Your task to perform on an android device: change alarm snooze length Image 0: 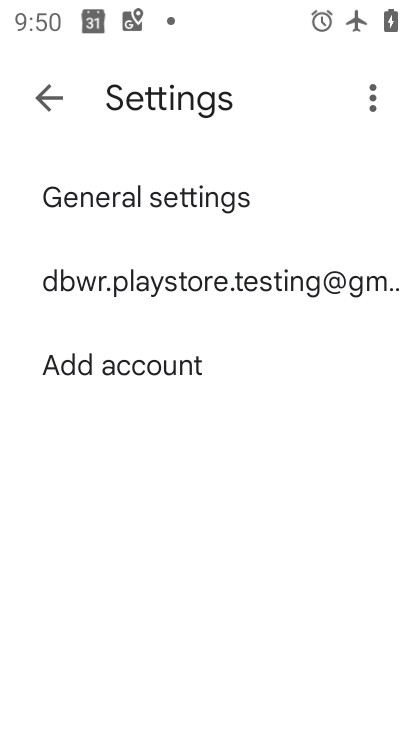
Step 0: press home button
Your task to perform on an android device: change alarm snooze length Image 1: 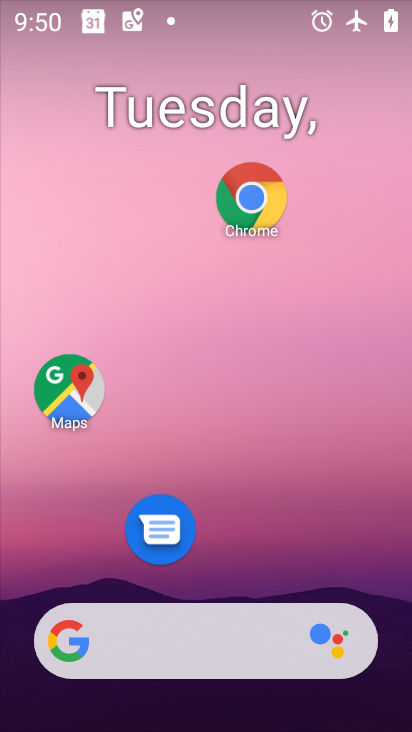
Step 1: drag from (369, 486) to (304, 86)
Your task to perform on an android device: change alarm snooze length Image 2: 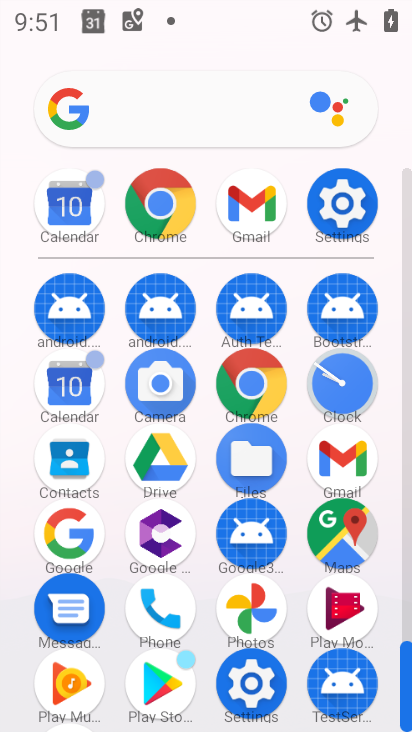
Step 2: click (346, 369)
Your task to perform on an android device: change alarm snooze length Image 3: 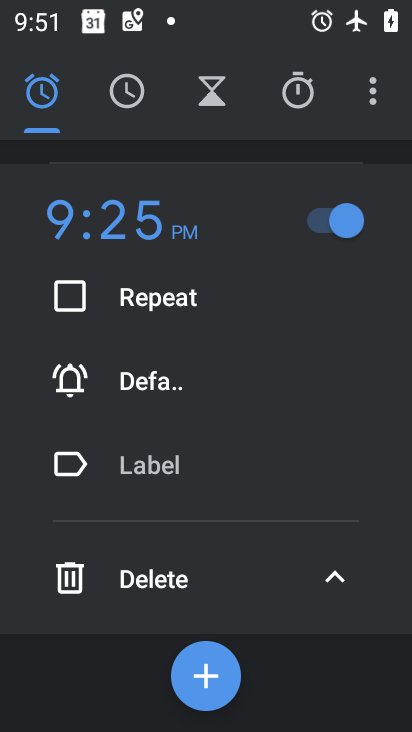
Step 3: click (361, 96)
Your task to perform on an android device: change alarm snooze length Image 4: 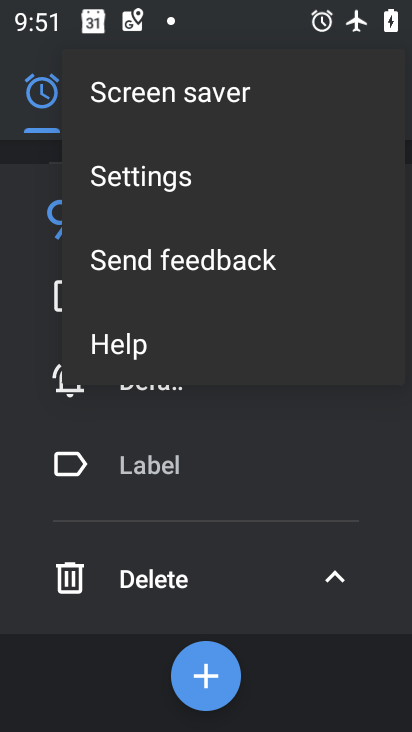
Step 4: click (206, 190)
Your task to perform on an android device: change alarm snooze length Image 5: 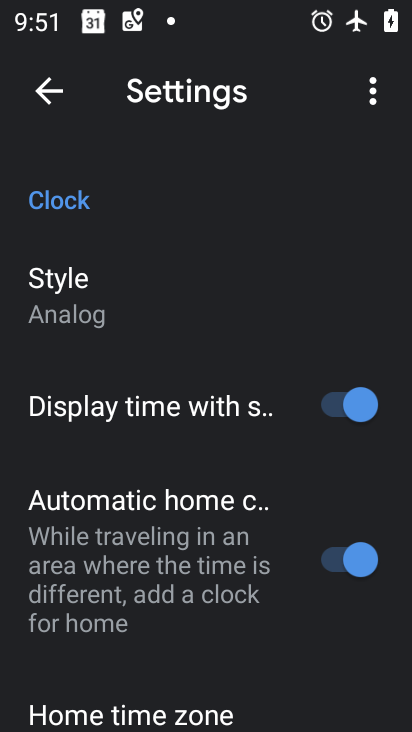
Step 5: drag from (157, 545) to (168, 169)
Your task to perform on an android device: change alarm snooze length Image 6: 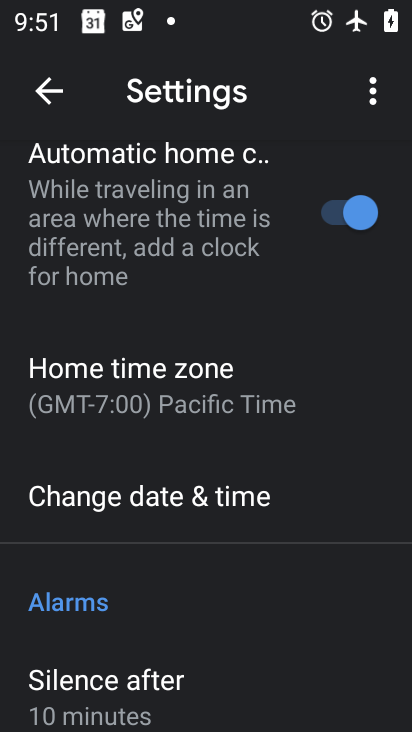
Step 6: drag from (168, 572) to (220, 202)
Your task to perform on an android device: change alarm snooze length Image 7: 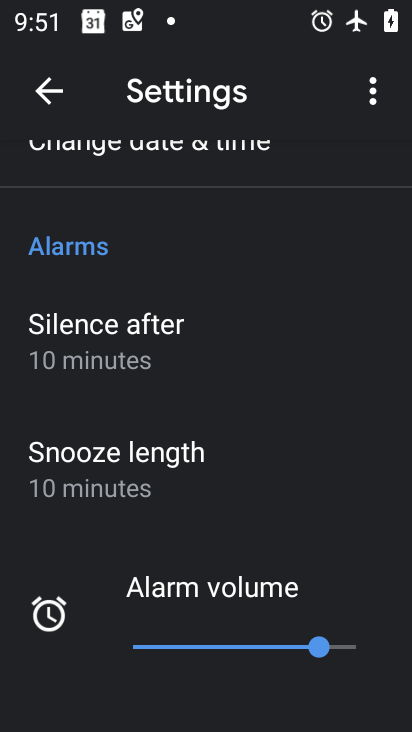
Step 7: click (211, 478)
Your task to perform on an android device: change alarm snooze length Image 8: 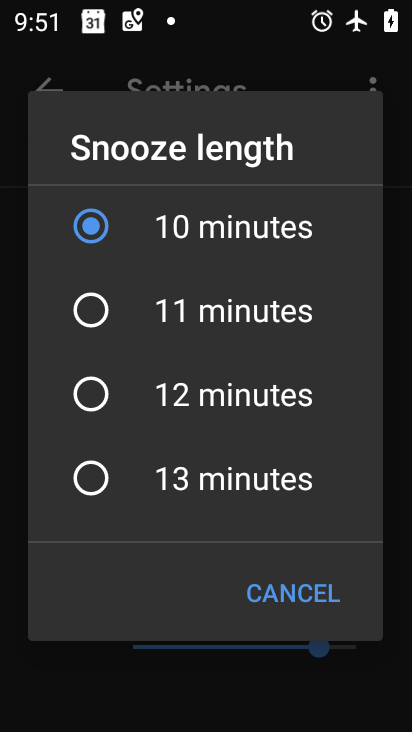
Step 8: click (95, 380)
Your task to perform on an android device: change alarm snooze length Image 9: 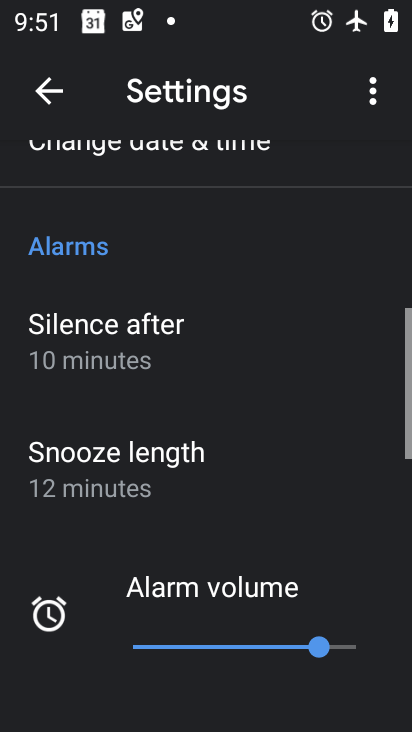
Step 9: task complete